Your task to perform on an android device: Go to ESPN.com Image 0: 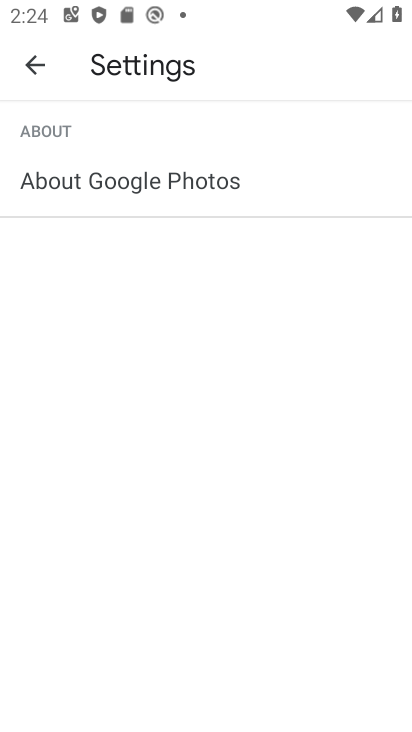
Step 0: drag from (400, 649) to (187, 234)
Your task to perform on an android device: Go to ESPN.com Image 1: 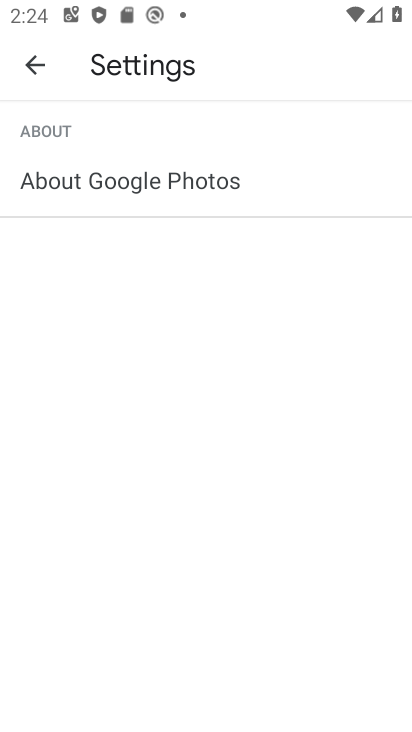
Step 1: click (29, 70)
Your task to perform on an android device: Go to ESPN.com Image 2: 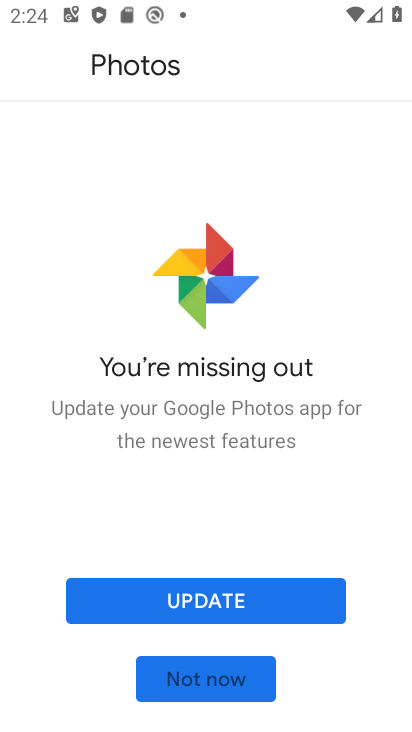
Step 2: click (226, 680)
Your task to perform on an android device: Go to ESPN.com Image 3: 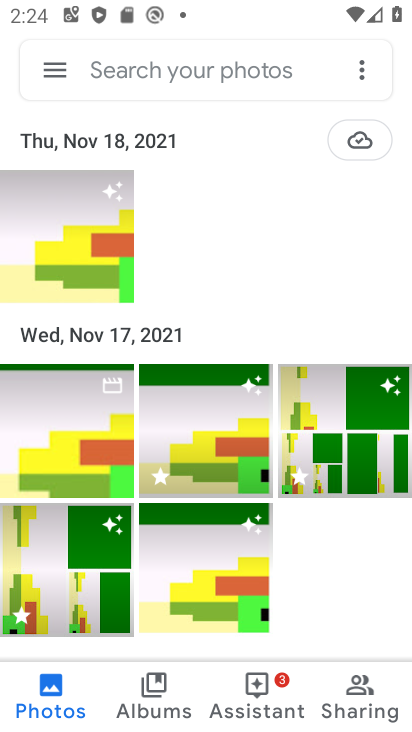
Step 3: press home button
Your task to perform on an android device: Go to ESPN.com Image 4: 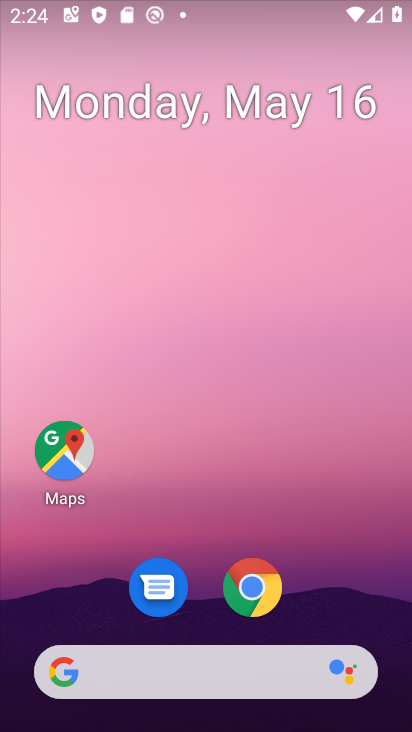
Step 4: drag from (272, 564) to (126, 143)
Your task to perform on an android device: Go to ESPN.com Image 5: 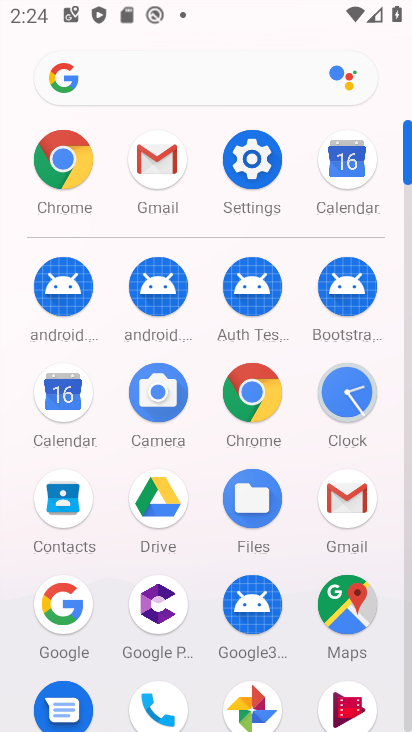
Step 5: click (240, 383)
Your task to perform on an android device: Go to ESPN.com Image 6: 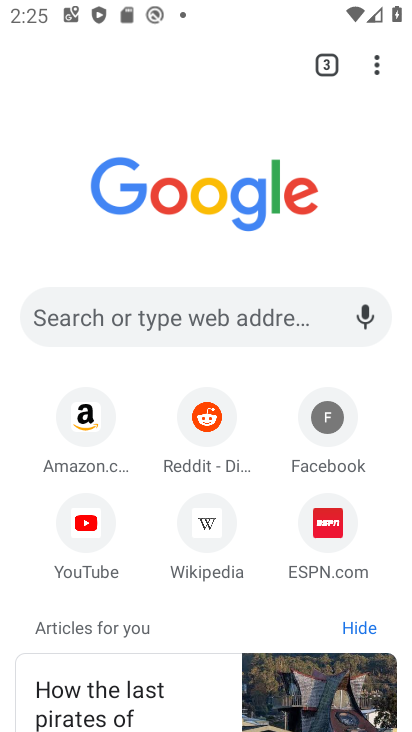
Step 6: click (334, 516)
Your task to perform on an android device: Go to ESPN.com Image 7: 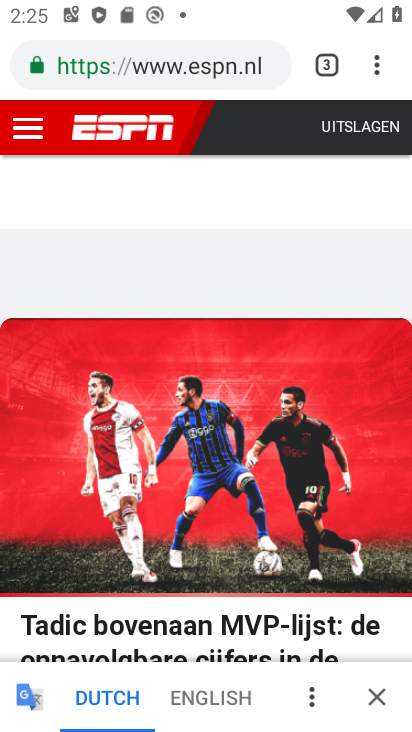
Step 7: task complete